Your task to perform on an android device: open app "LiveIn - Share Your Moment" (install if not already installed) and go to login screen Image 0: 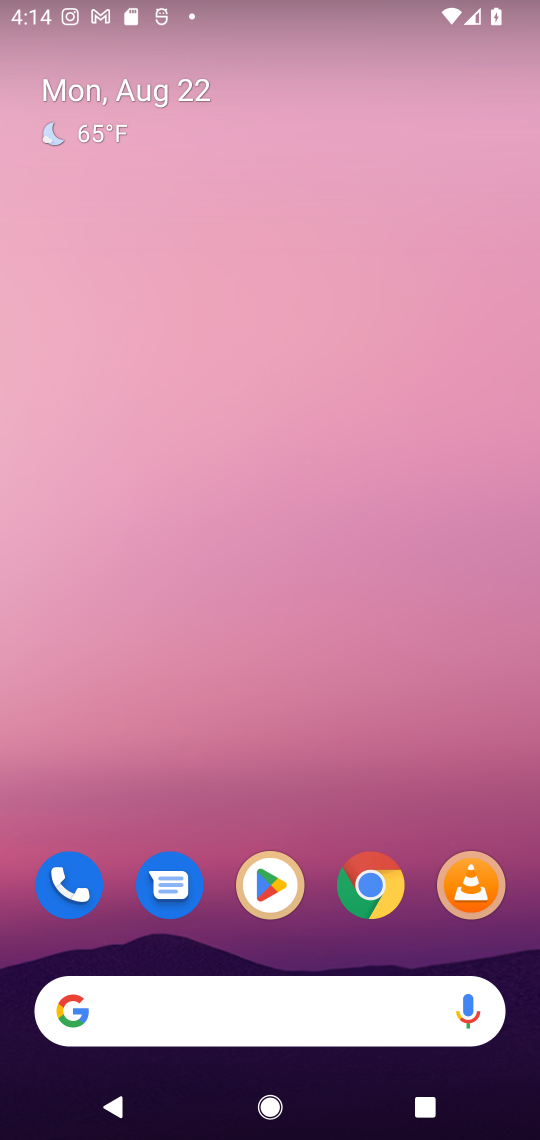
Step 0: press home button
Your task to perform on an android device: open app "LiveIn - Share Your Moment" (install if not already installed) and go to login screen Image 1: 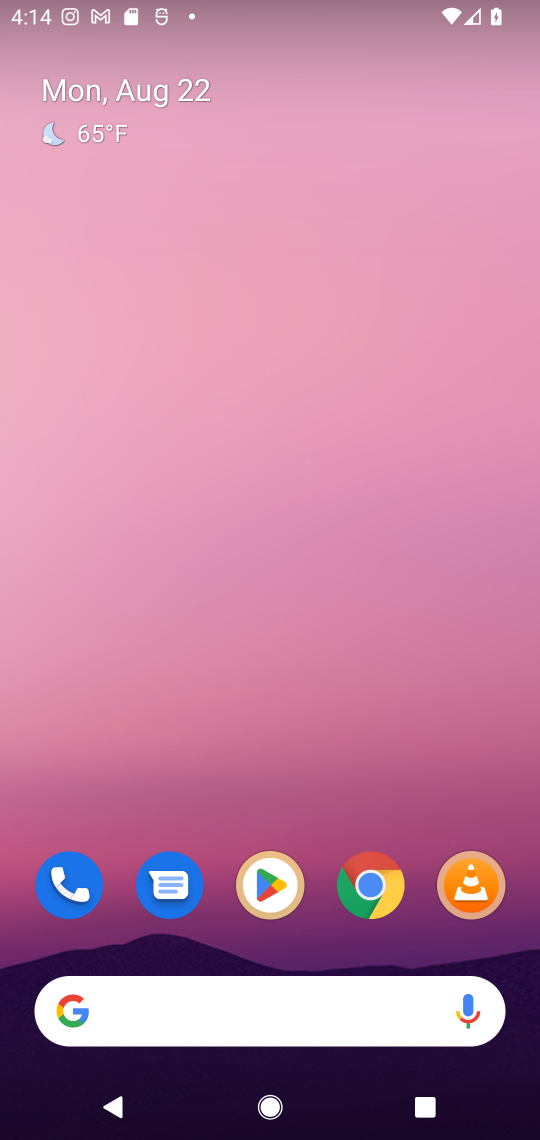
Step 1: click (264, 881)
Your task to perform on an android device: open app "LiveIn - Share Your Moment" (install if not already installed) and go to login screen Image 2: 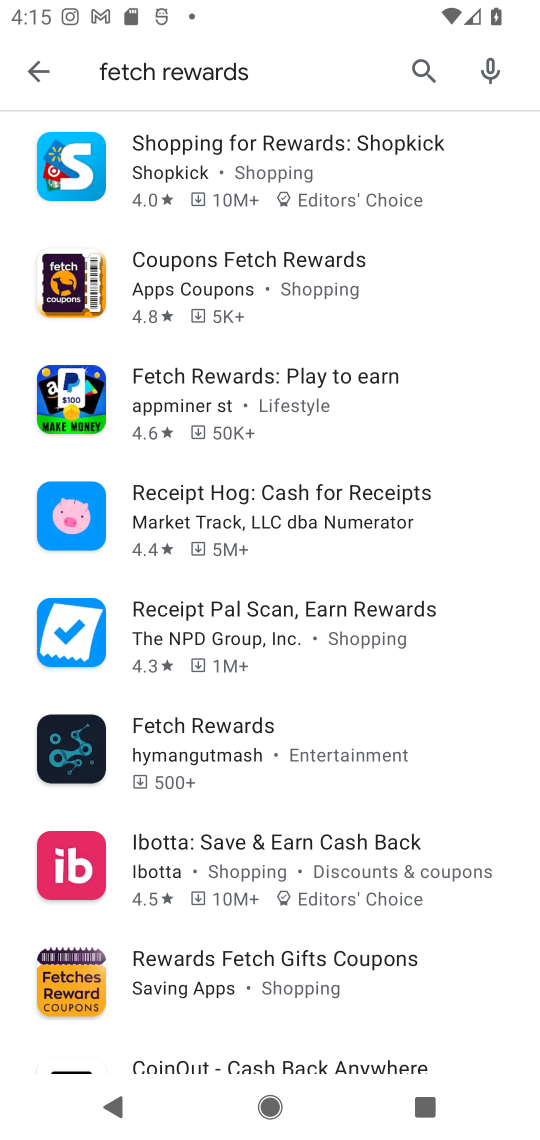
Step 2: click (428, 59)
Your task to perform on an android device: open app "LiveIn - Share Your Moment" (install if not already installed) and go to login screen Image 3: 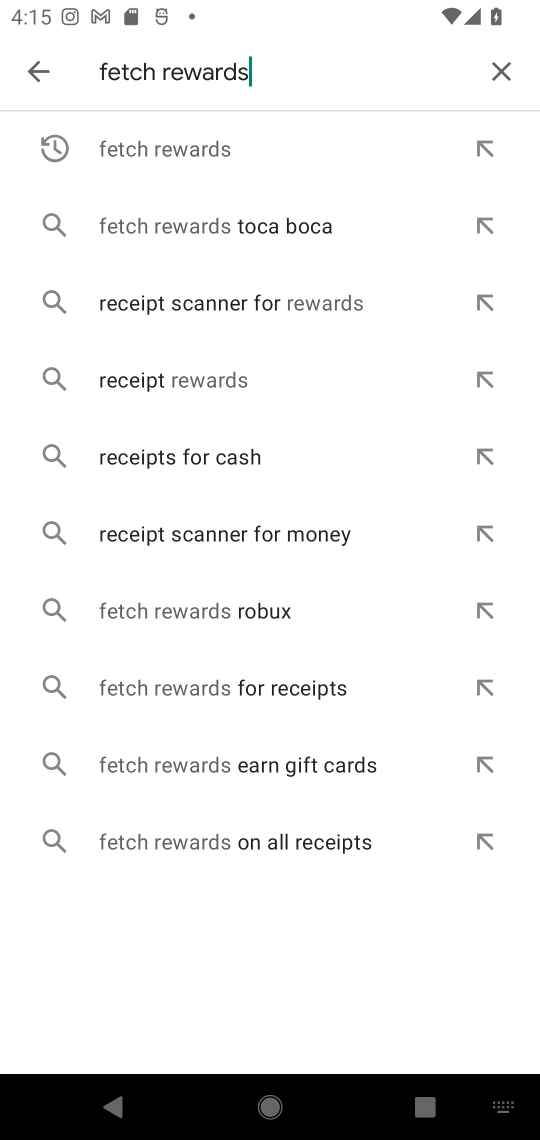
Step 3: click (488, 50)
Your task to perform on an android device: open app "LiveIn - Share Your Moment" (install if not already installed) and go to login screen Image 4: 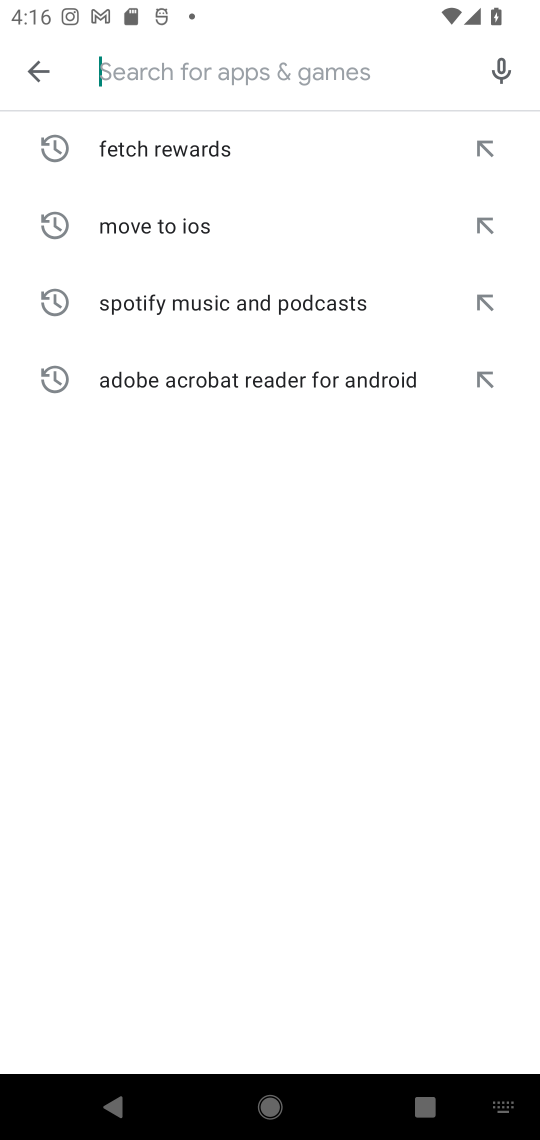
Step 4: type "LiveIn - Share Your Moment"
Your task to perform on an android device: open app "LiveIn - Share Your Moment" (install if not already installed) and go to login screen Image 5: 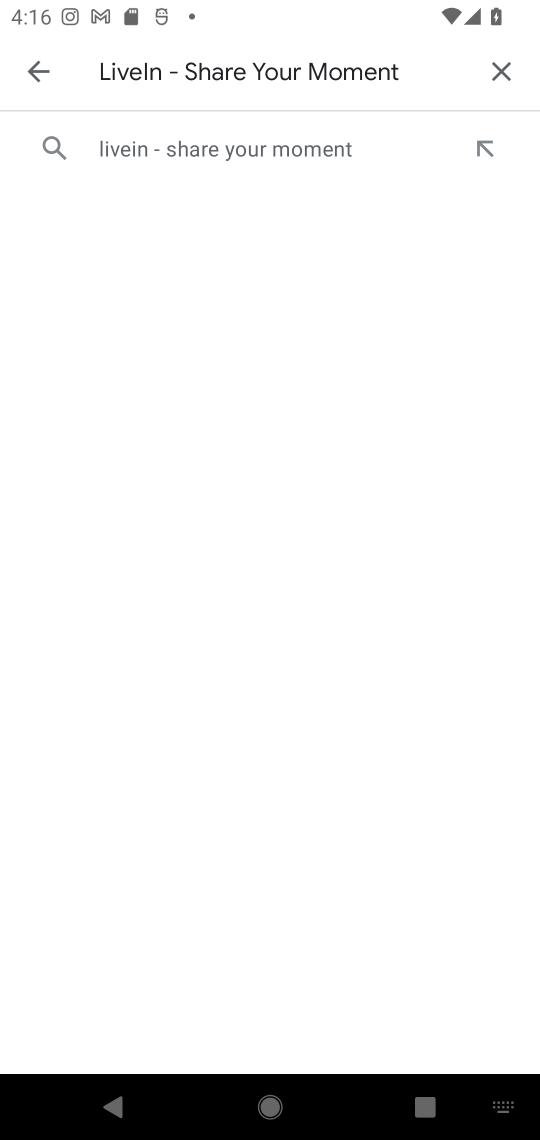
Step 5: click (363, 161)
Your task to perform on an android device: open app "LiveIn - Share Your Moment" (install if not already installed) and go to login screen Image 6: 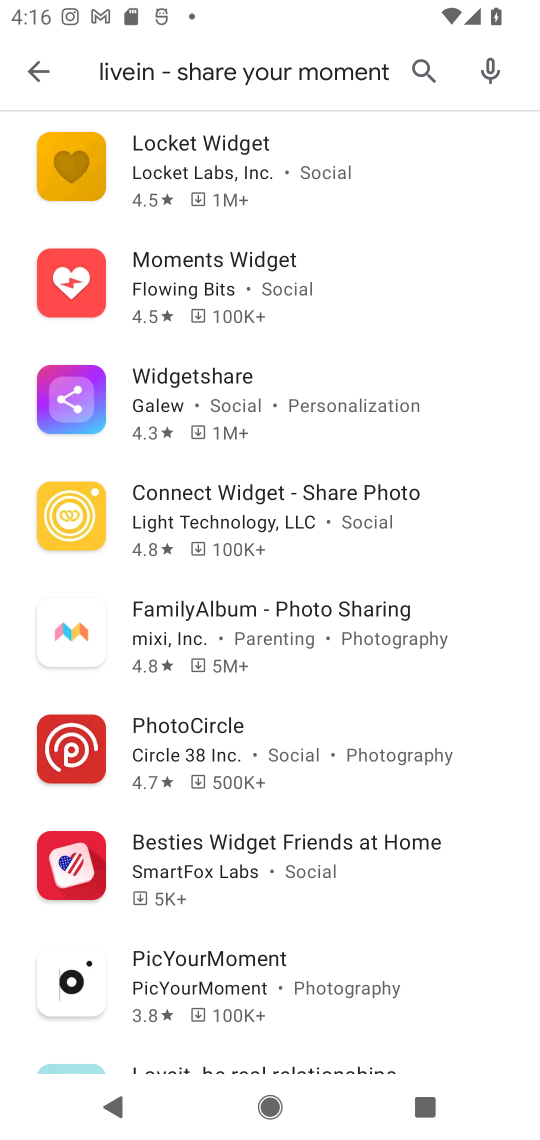
Step 6: task complete